Your task to perform on an android device: find photos in the google photos app Image 0: 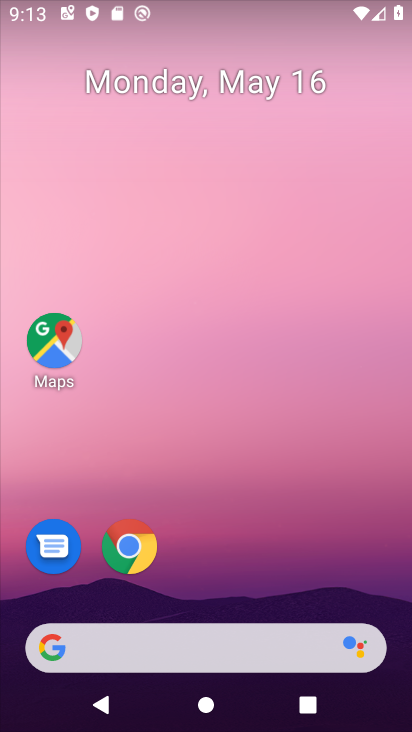
Step 0: drag from (249, 683) to (252, 132)
Your task to perform on an android device: find photos in the google photos app Image 1: 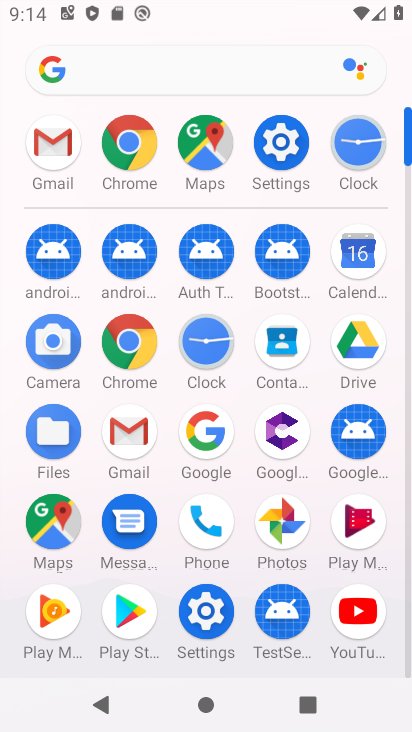
Step 1: click (289, 516)
Your task to perform on an android device: find photos in the google photos app Image 2: 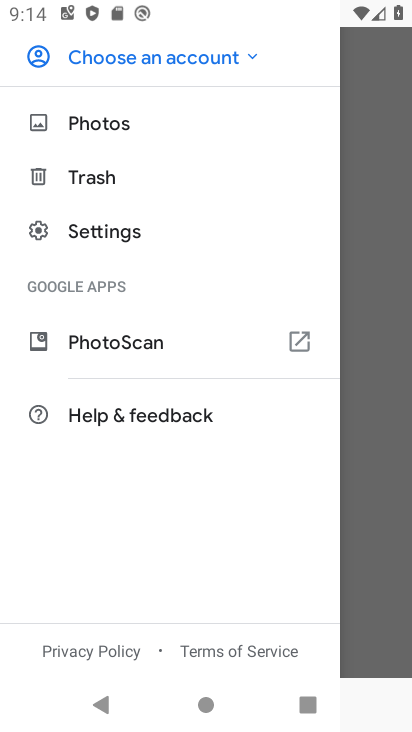
Step 2: click (117, 126)
Your task to perform on an android device: find photos in the google photos app Image 3: 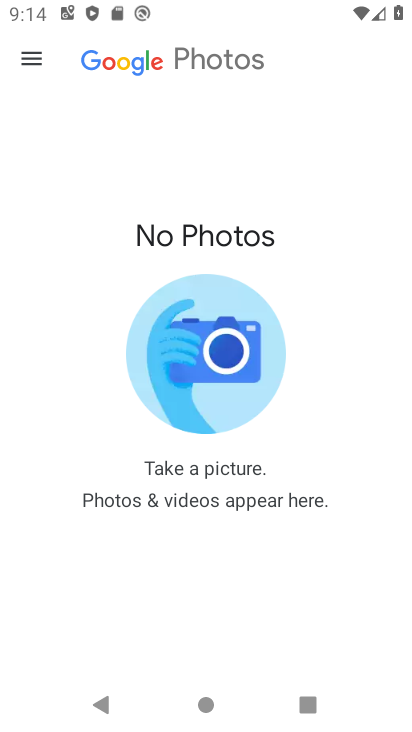
Step 3: task complete